Your task to perform on an android device: turn on wifi Image 0: 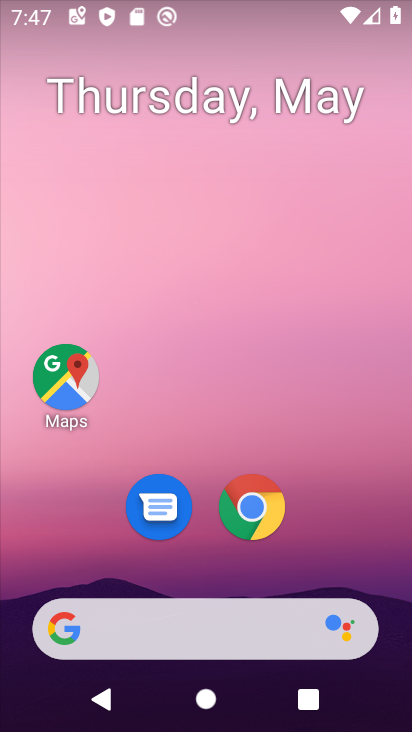
Step 0: drag from (266, 664) to (115, 205)
Your task to perform on an android device: turn on wifi Image 1: 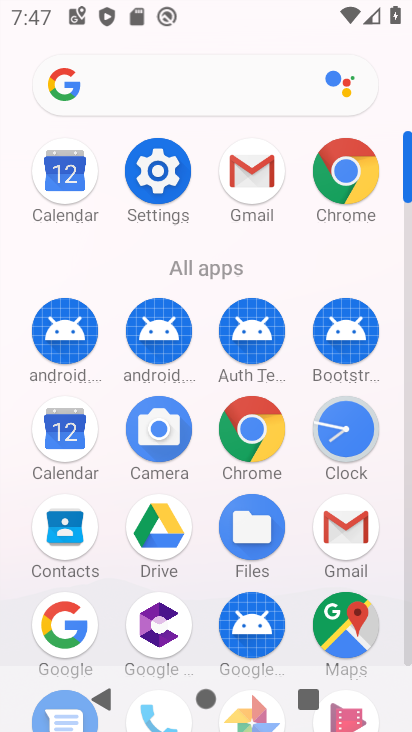
Step 1: click (151, 160)
Your task to perform on an android device: turn on wifi Image 2: 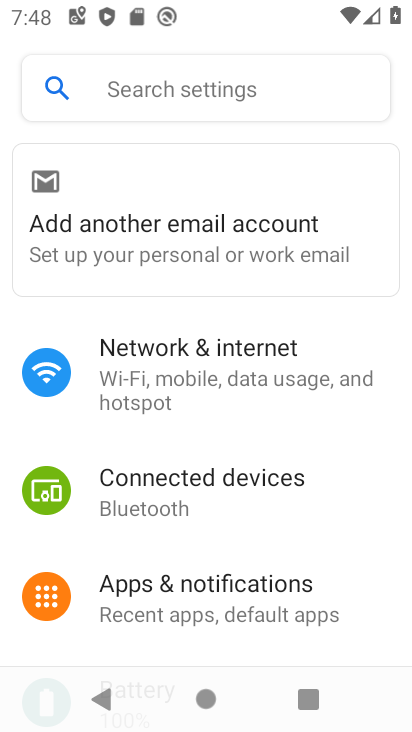
Step 2: click (215, 352)
Your task to perform on an android device: turn on wifi Image 3: 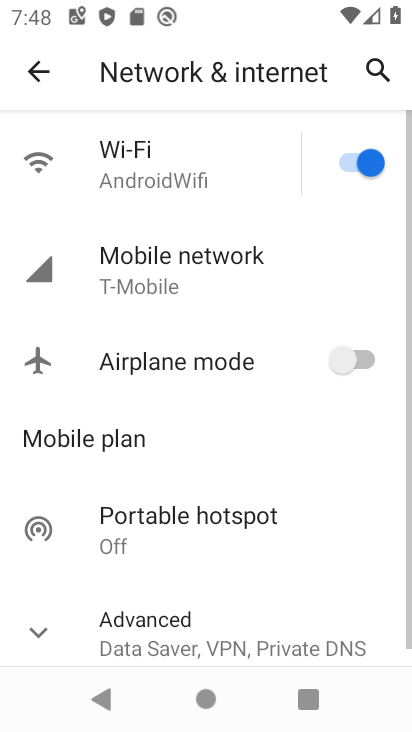
Step 3: click (176, 189)
Your task to perform on an android device: turn on wifi Image 4: 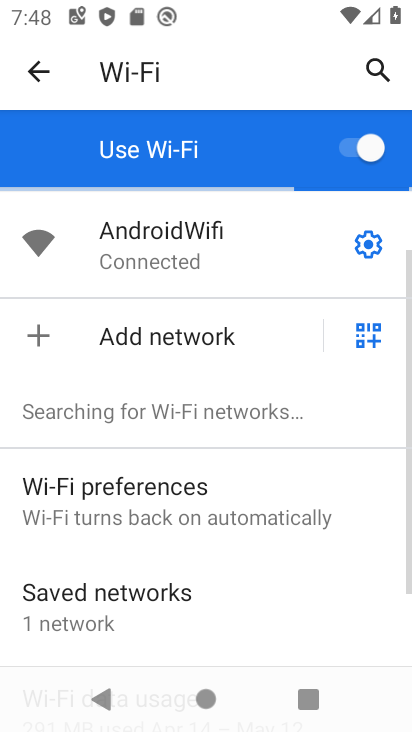
Step 4: click (376, 150)
Your task to perform on an android device: turn on wifi Image 5: 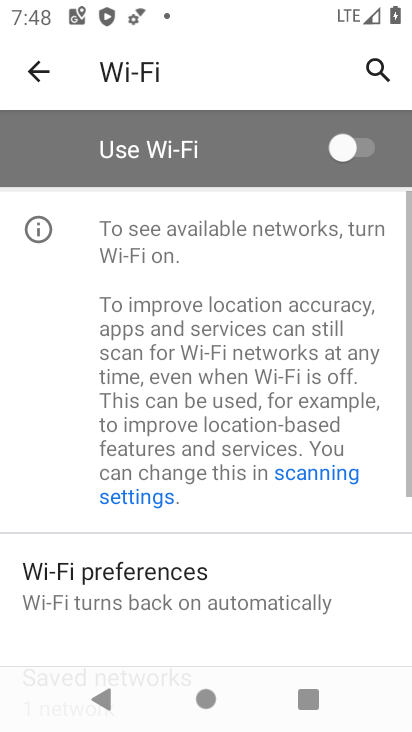
Step 5: click (367, 149)
Your task to perform on an android device: turn on wifi Image 6: 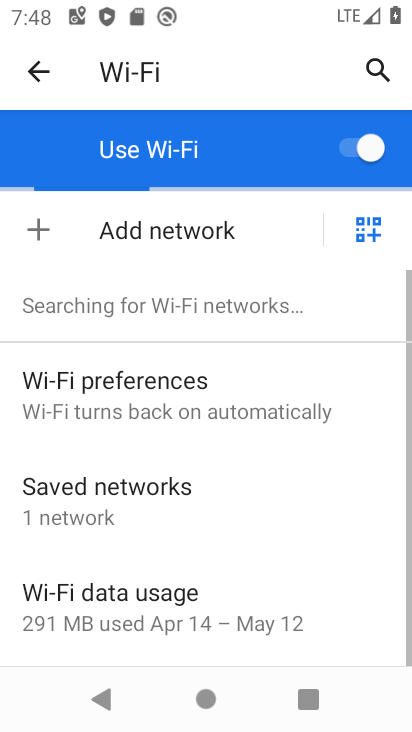
Step 6: task complete